Your task to perform on an android device: Turn on the flashlight Image 0: 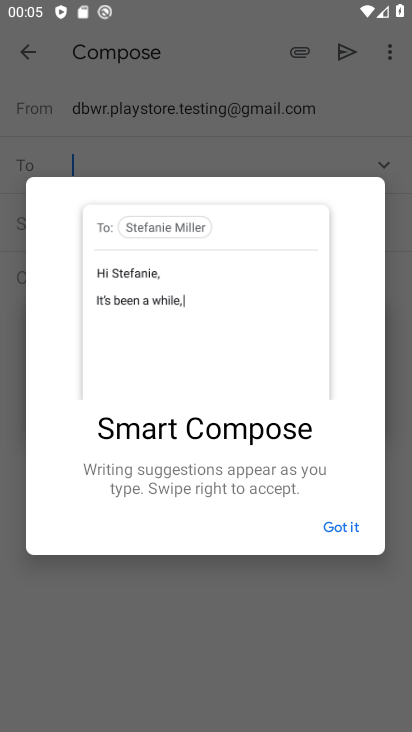
Step 0: press home button
Your task to perform on an android device: Turn on the flashlight Image 1: 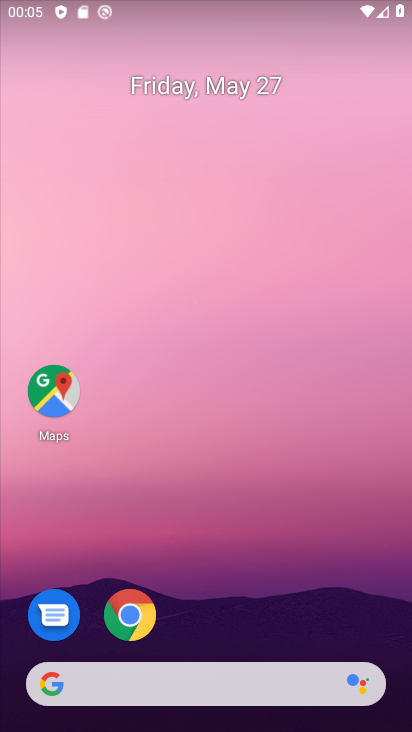
Step 1: drag from (255, 1) to (263, 429)
Your task to perform on an android device: Turn on the flashlight Image 2: 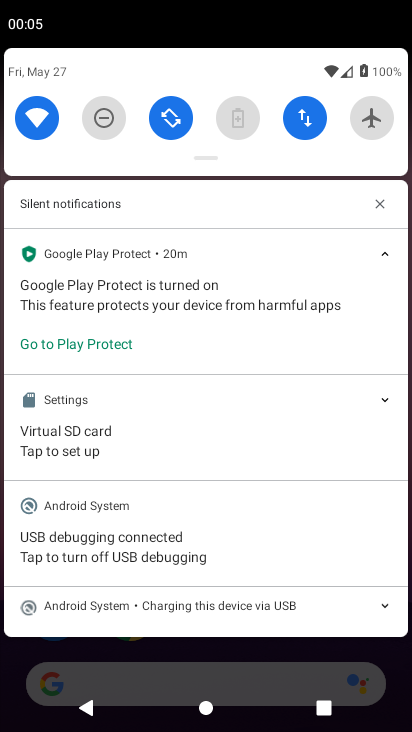
Step 2: drag from (190, 68) to (206, 382)
Your task to perform on an android device: Turn on the flashlight Image 3: 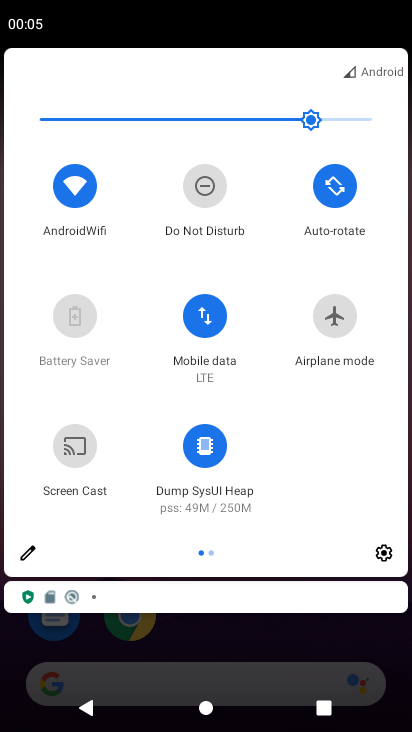
Step 3: click (28, 555)
Your task to perform on an android device: Turn on the flashlight Image 4: 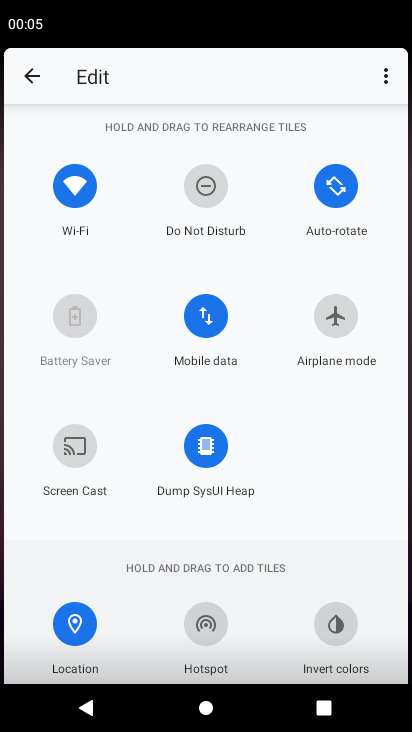
Step 4: task complete